Your task to perform on an android device: clear all cookies in the chrome app Image 0: 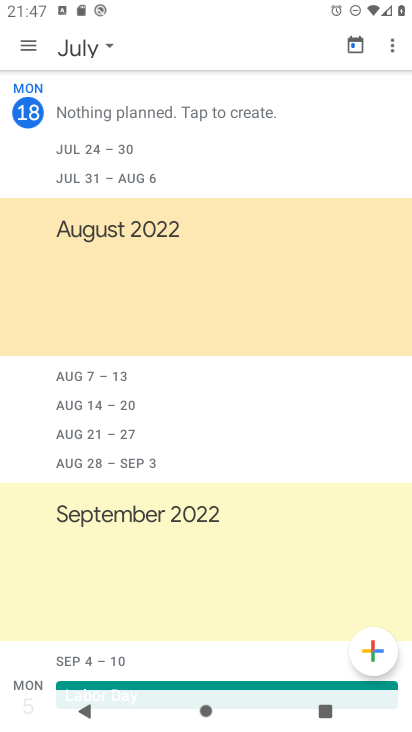
Step 0: press home button
Your task to perform on an android device: clear all cookies in the chrome app Image 1: 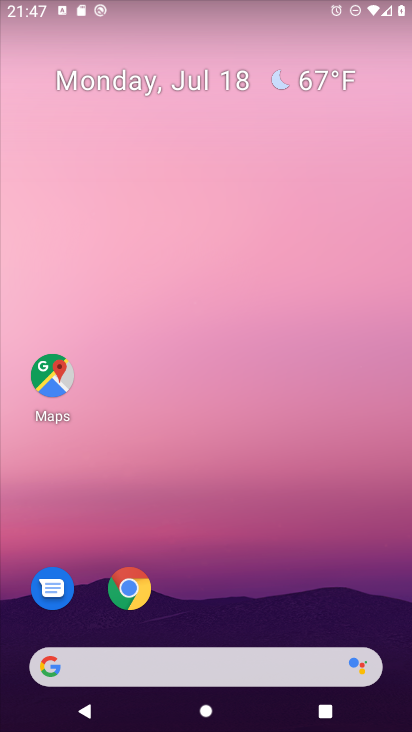
Step 1: click (128, 591)
Your task to perform on an android device: clear all cookies in the chrome app Image 2: 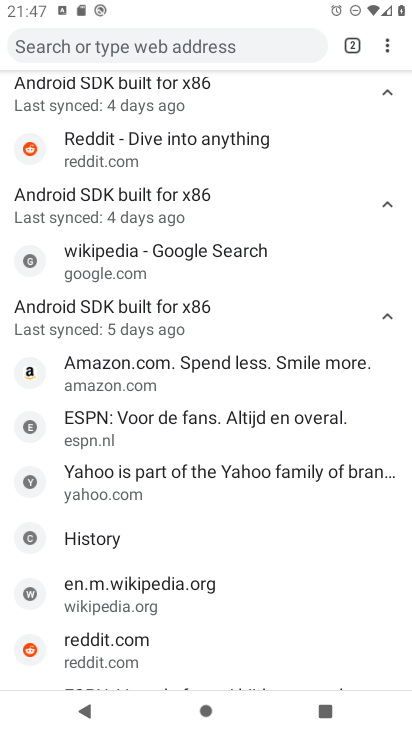
Step 2: click (385, 54)
Your task to perform on an android device: clear all cookies in the chrome app Image 3: 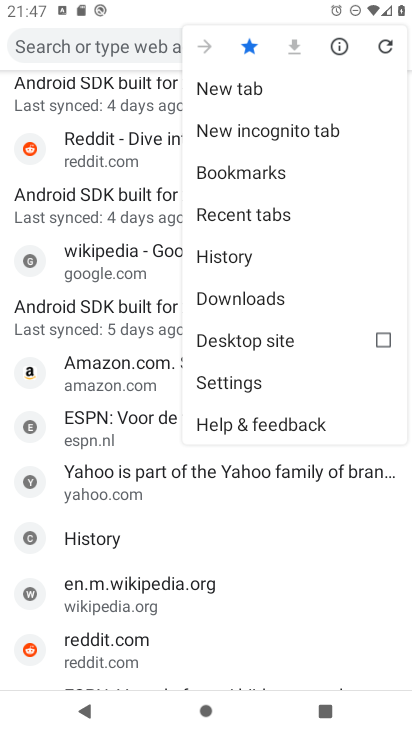
Step 3: click (218, 254)
Your task to perform on an android device: clear all cookies in the chrome app Image 4: 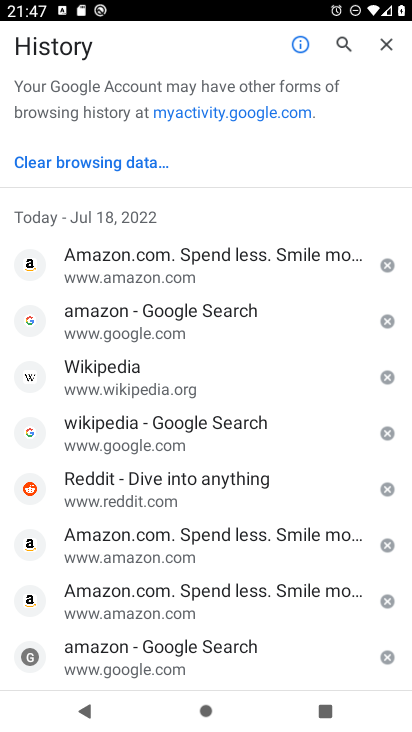
Step 4: click (80, 164)
Your task to perform on an android device: clear all cookies in the chrome app Image 5: 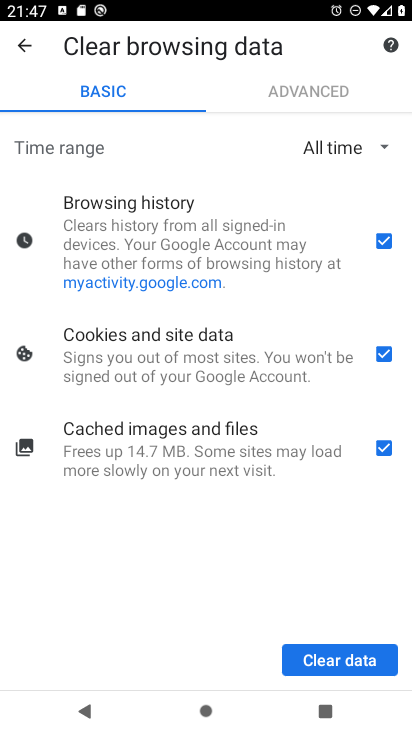
Step 5: click (385, 241)
Your task to perform on an android device: clear all cookies in the chrome app Image 6: 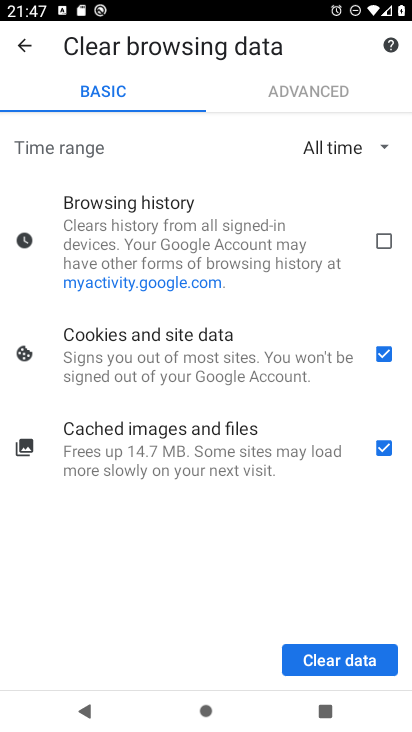
Step 6: click (383, 447)
Your task to perform on an android device: clear all cookies in the chrome app Image 7: 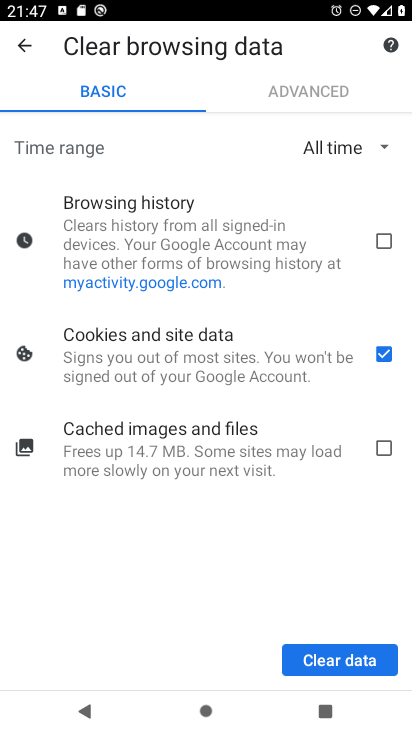
Step 7: click (343, 661)
Your task to perform on an android device: clear all cookies in the chrome app Image 8: 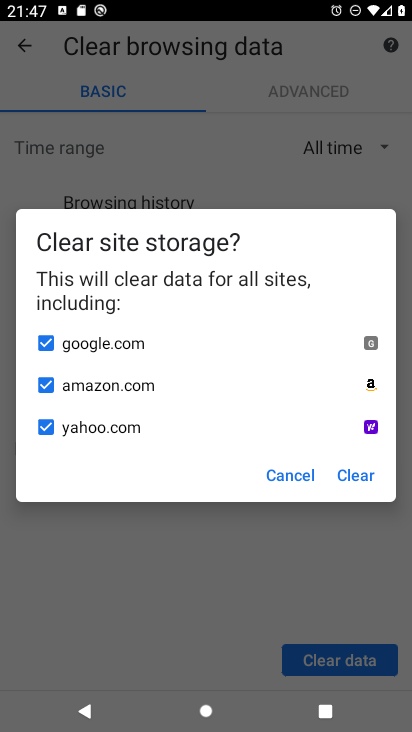
Step 8: click (358, 478)
Your task to perform on an android device: clear all cookies in the chrome app Image 9: 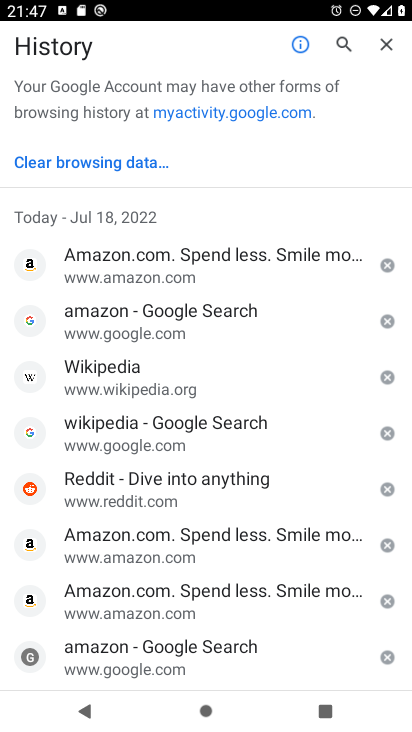
Step 9: task complete